Your task to perform on an android device: toggle pop-ups in chrome Image 0: 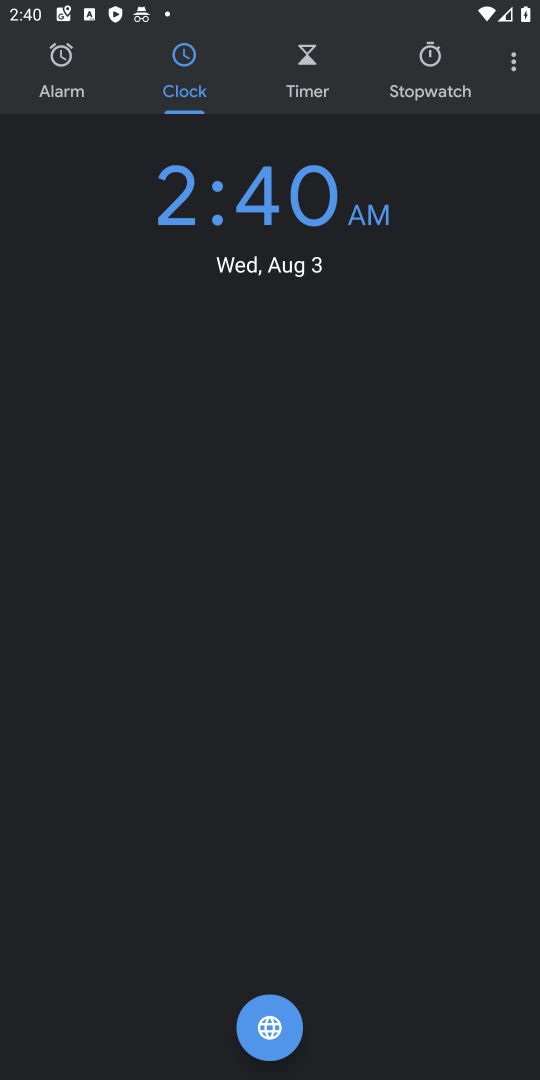
Step 0: press home button
Your task to perform on an android device: toggle pop-ups in chrome Image 1: 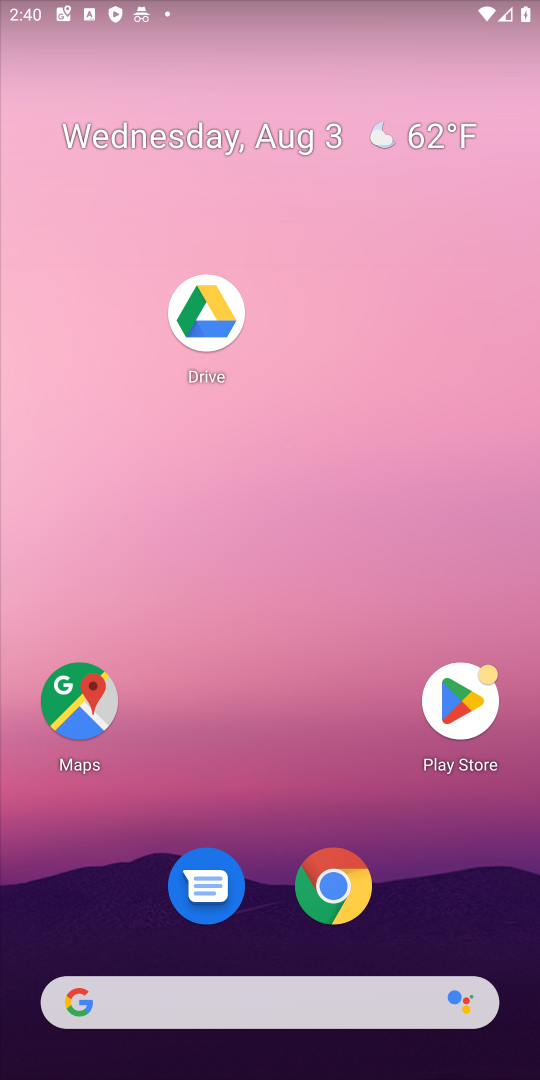
Step 1: drag from (391, 826) to (452, 0)
Your task to perform on an android device: toggle pop-ups in chrome Image 2: 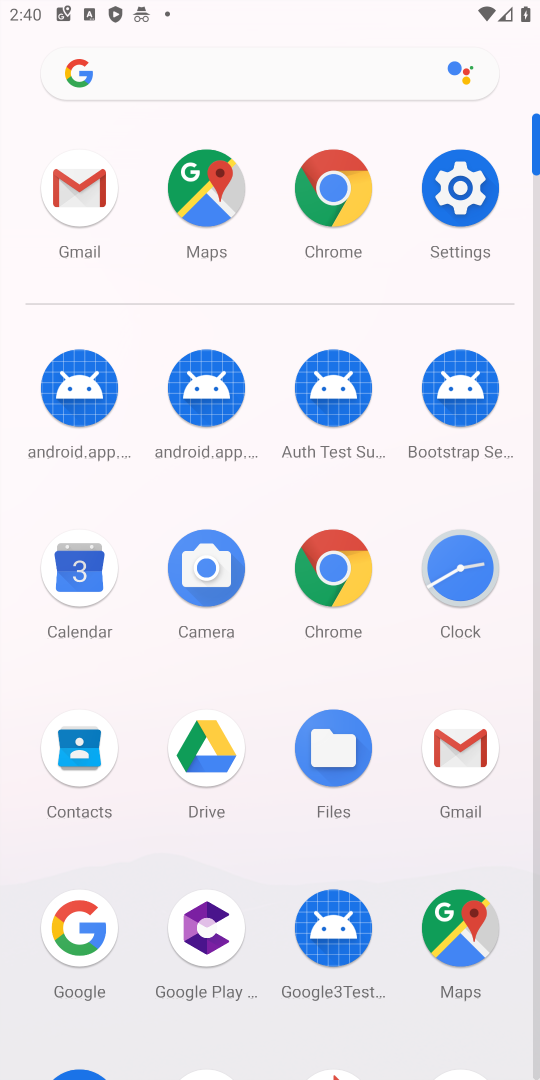
Step 2: click (345, 584)
Your task to perform on an android device: toggle pop-ups in chrome Image 3: 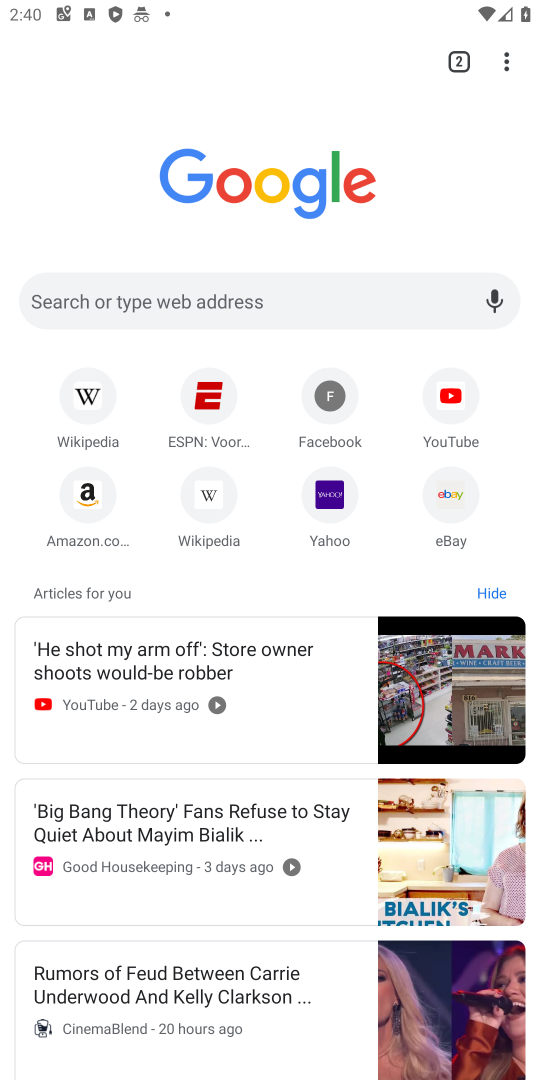
Step 3: click (505, 59)
Your task to perform on an android device: toggle pop-ups in chrome Image 4: 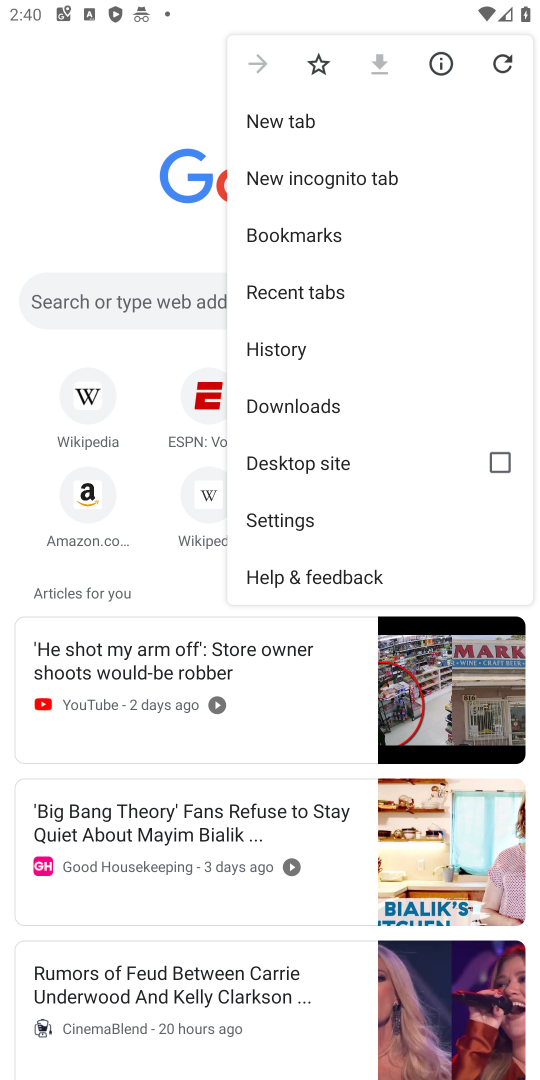
Step 4: click (354, 523)
Your task to perform on an android device: toggle pop-ups in chrome Image 5: 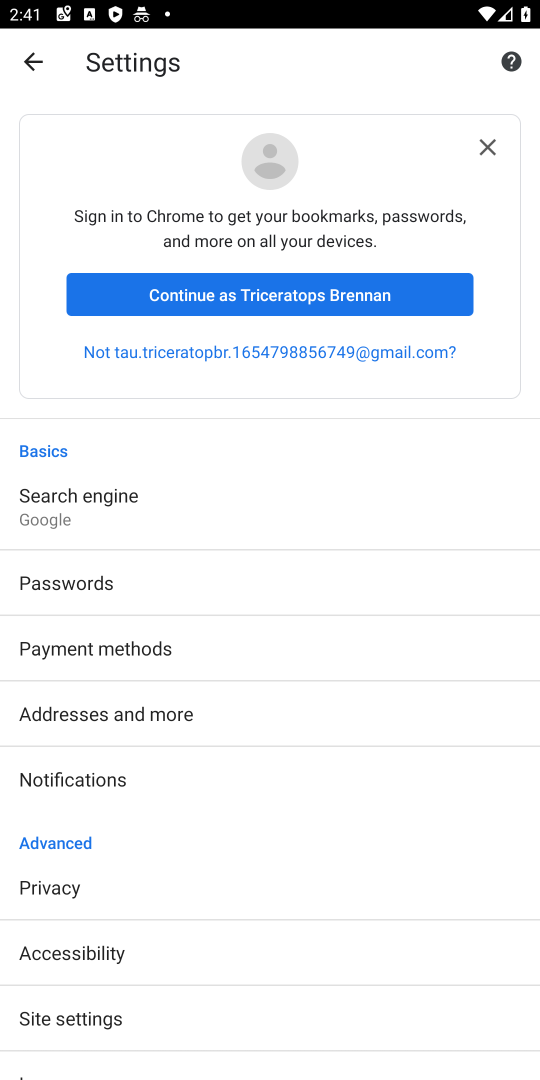
Step 5: drag from (257, 910) to (280, 394)
Your task to perform on an android device: toggle pop-ups in chrome Image 6: 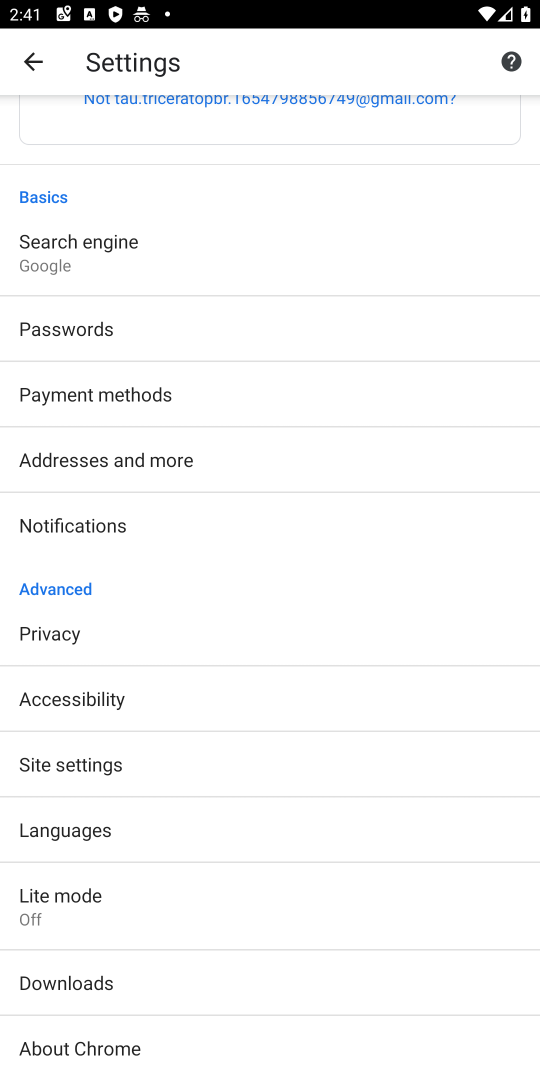
Step 6: click (158, 773)
Your task to perform on an android device: toggle pop-ups in chrome Image 7: 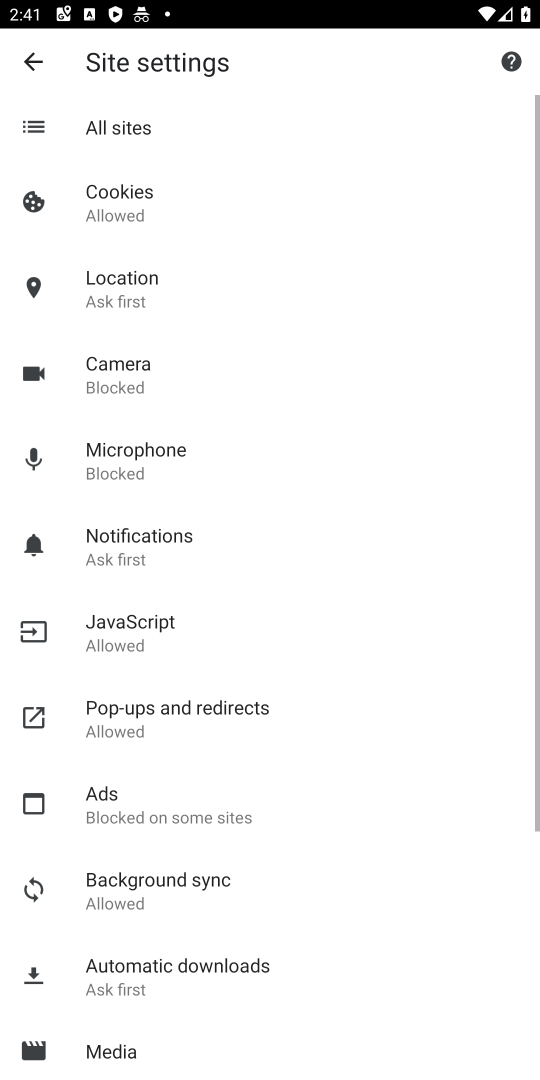
Step 7: click (151, 712)
Your task to perform on an android device: toggle pop-ups in chrome Image 8: 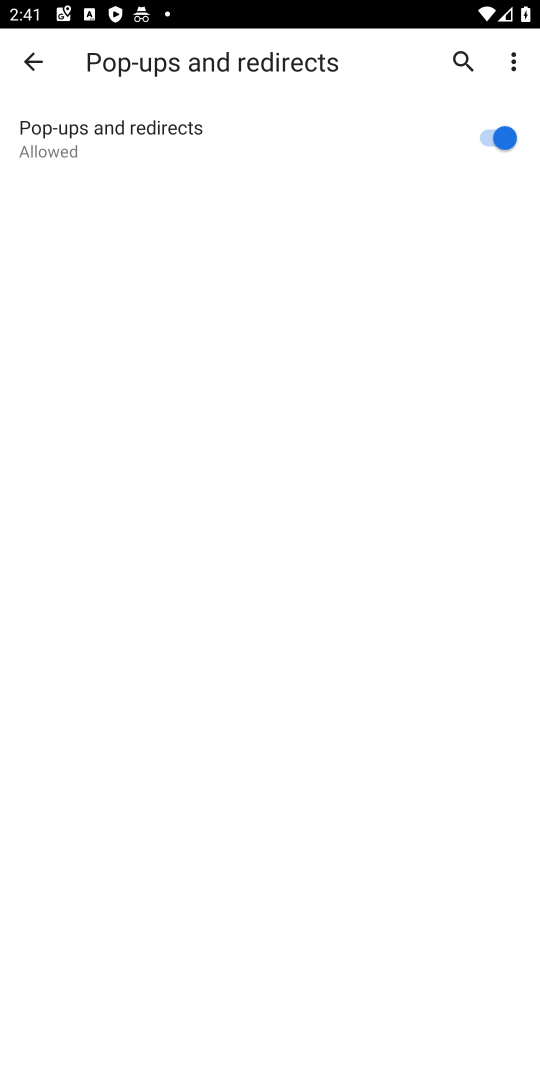
Step 8: click (499, 136)
Your task to perform on an android device: toggle pop-ups in chrome Image 9: 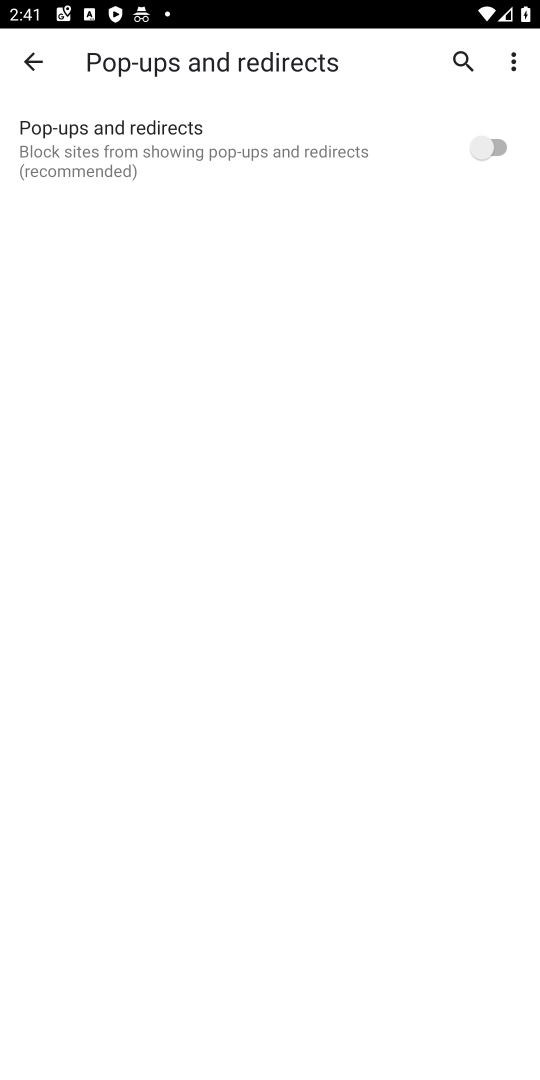
Step 9: task complete